Your task to perform on an android device: visit the assistant section in the google photos Image 0: 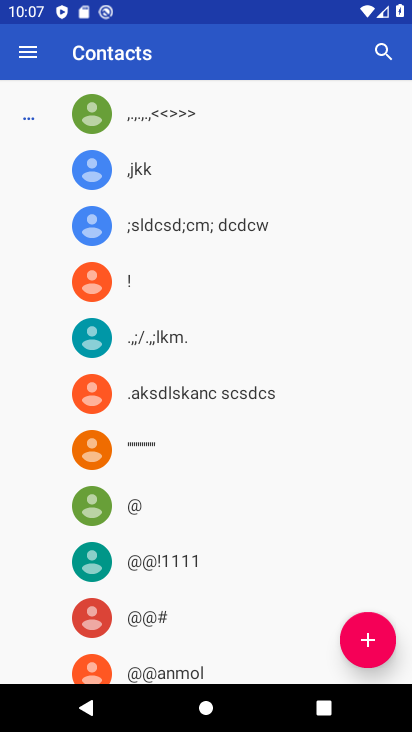
Step 0: press home button
Your task to perform on an android device: visit the assistant section in the google photos Image 1: 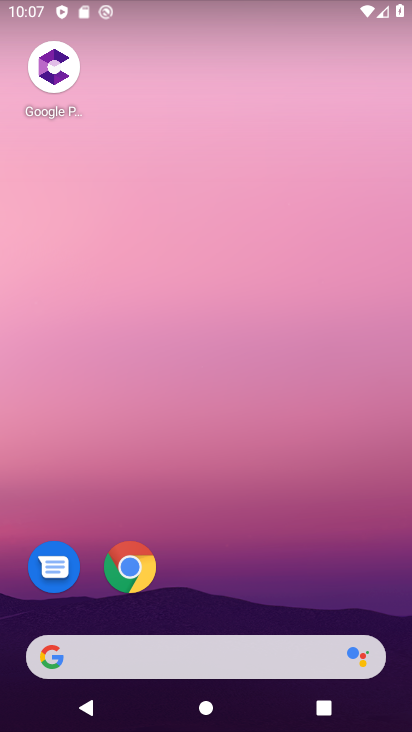
Step 1: drag from (232, 586) to (232, 157)
Your task to perform on an android device: visit the assistant section in the google photos Image 2: 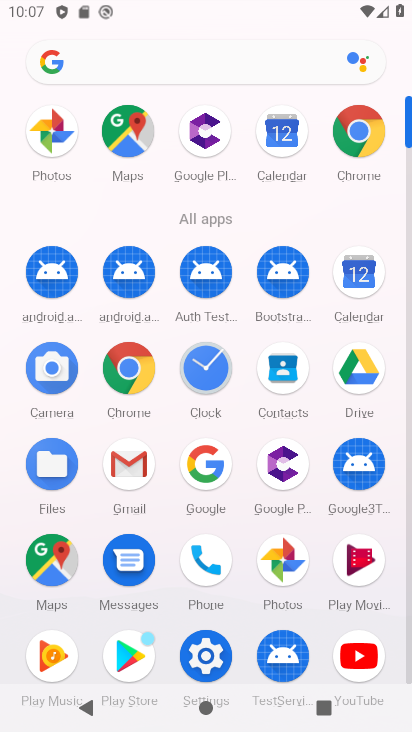
Step 2: click (54, 157)
Your task to perform on an android device: visit the assistant section in the google photos Image 3: 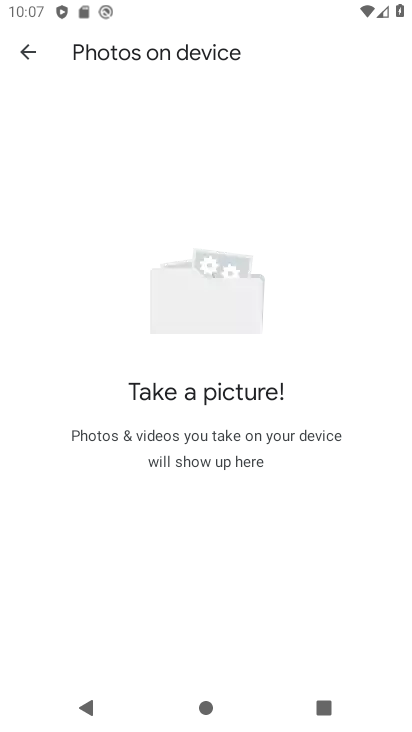
Step 3: press back button
Your task to perform on an android device: visit the assistant section in the google photos Image 4: 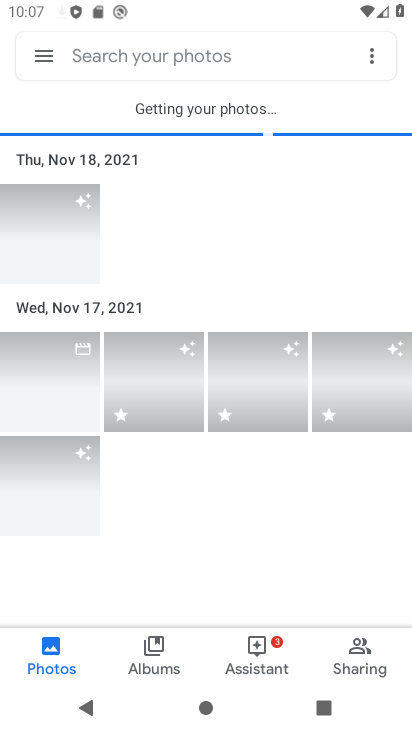
Step 4: click (256, 664)
Your task to perform on an android device: visit the assistant section in the google photos Image 5: 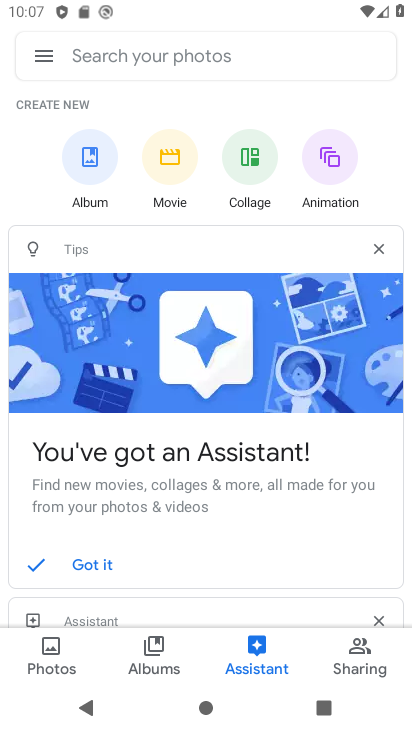
Step 5: task complete